Your task to perform on an android device: refresh tabs in the chrome app Image 0: 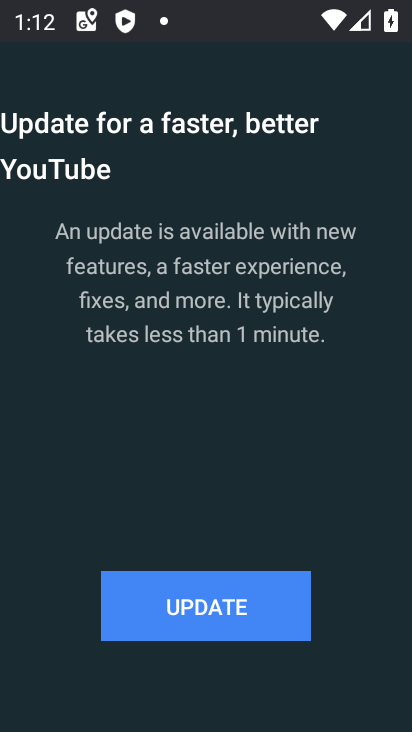
Step 0: press home button
Your task to perform on an android device: refresh tabs in the chrome app Image 1: 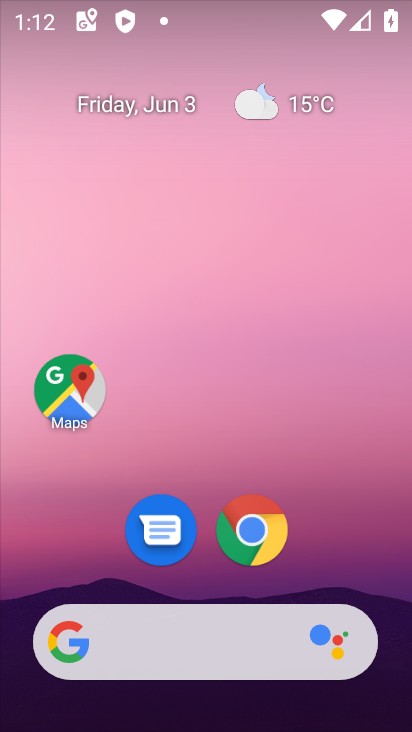
Step 1: click (262, 535)
Your task to perform on an android device: refresh tabs in the chrome app Image 2: 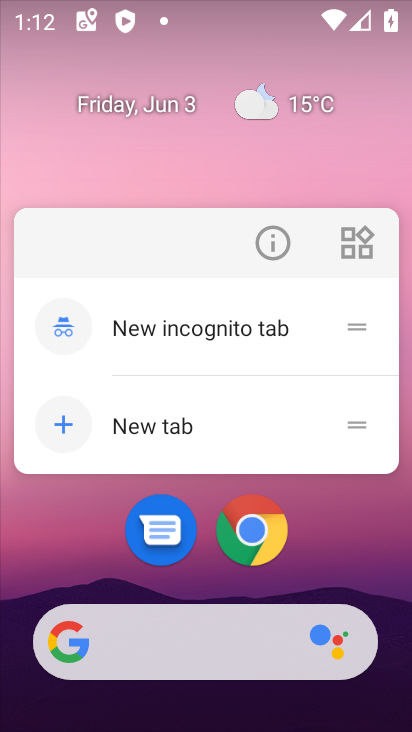
Step 2: click (242, 516)
Your task to perform on an android device: refresh tabs in the chrome app Image 3: 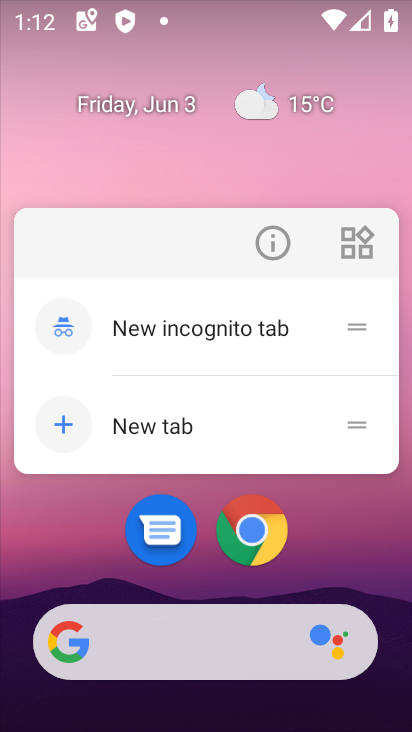
Step 3: click (242, 524)
Your task to perform on an android device: refresh tabs in the chrome app Image 4: 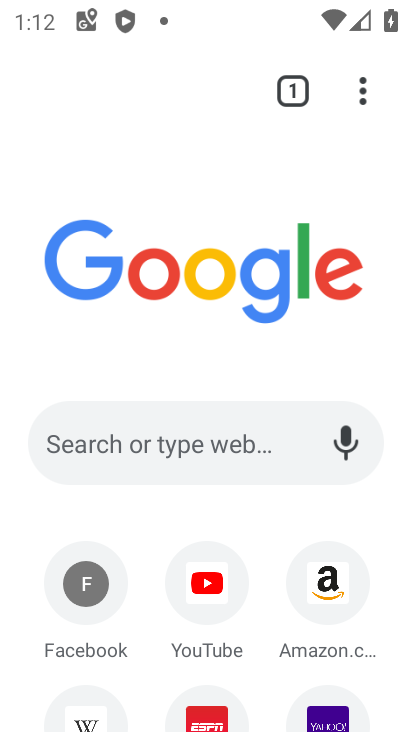
Step 4: click (365, 88)
Your task to perform on an android device: refresh tabs in the chrome app Image 5: 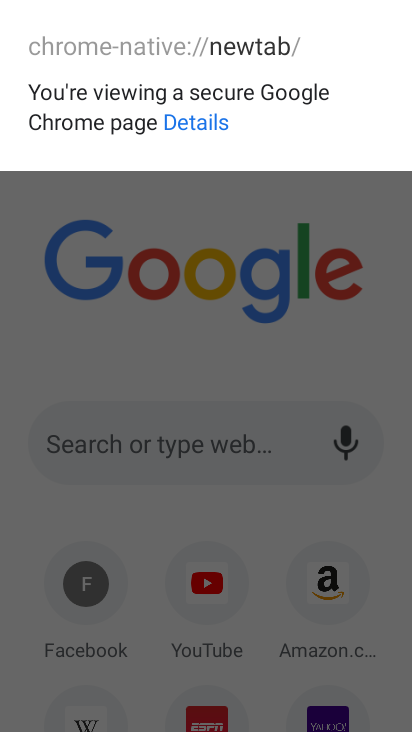
Step 5: click (352, 184)
Your task to perform on an android device: refresh tabs in the chrome app Image 6: 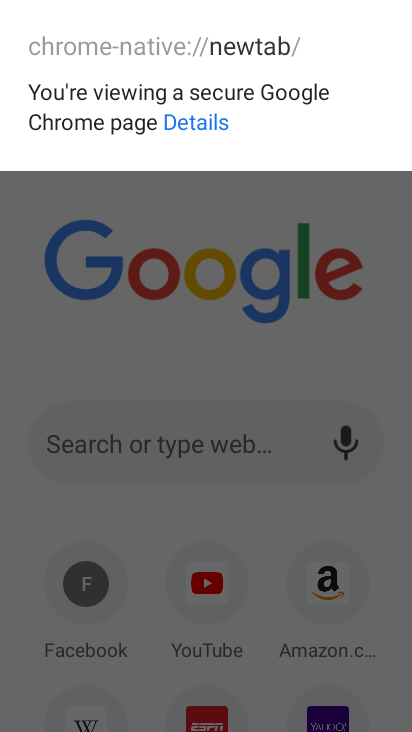
Step 6: click (338, 201)
Your task to perform on an android device: refresh tabs in the chrome app Image 7: 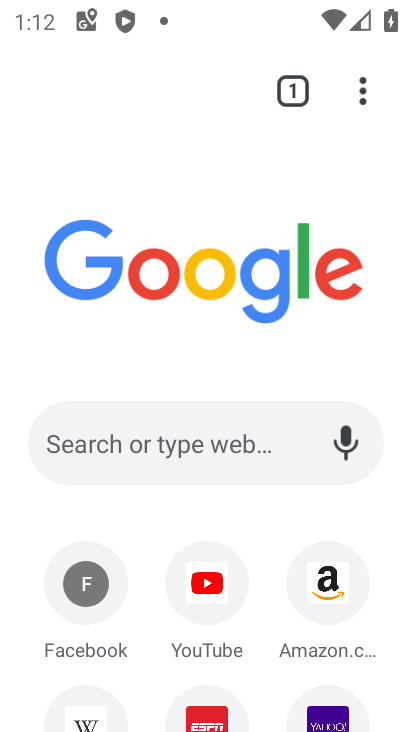
Step 7: task complete